Your task to perform on an android device: Go to settings Image 0: 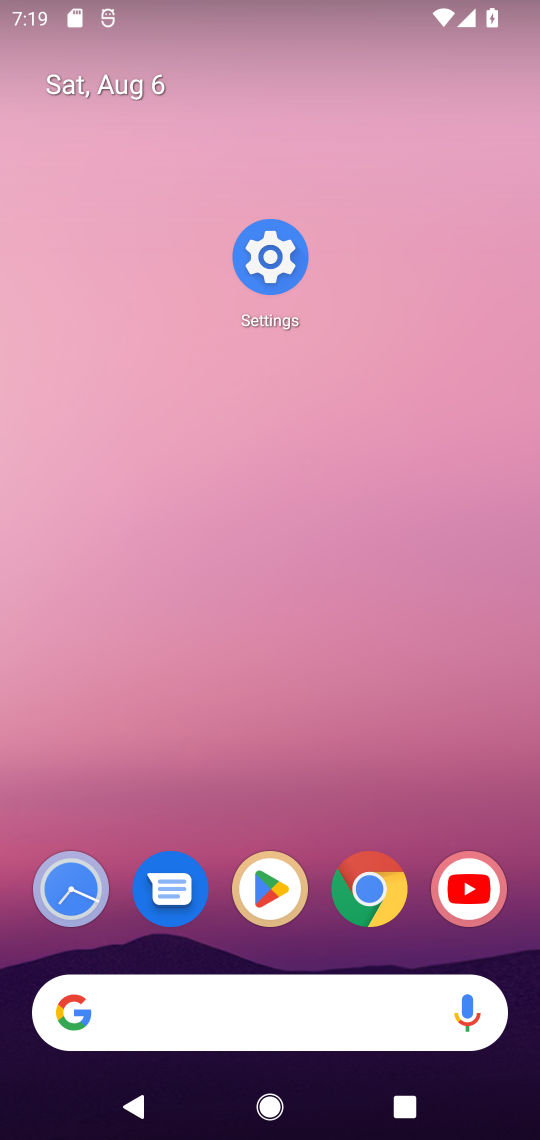
Step 0: click (268, 260)
Your task to perform on an android device: Go to settings Image 1: 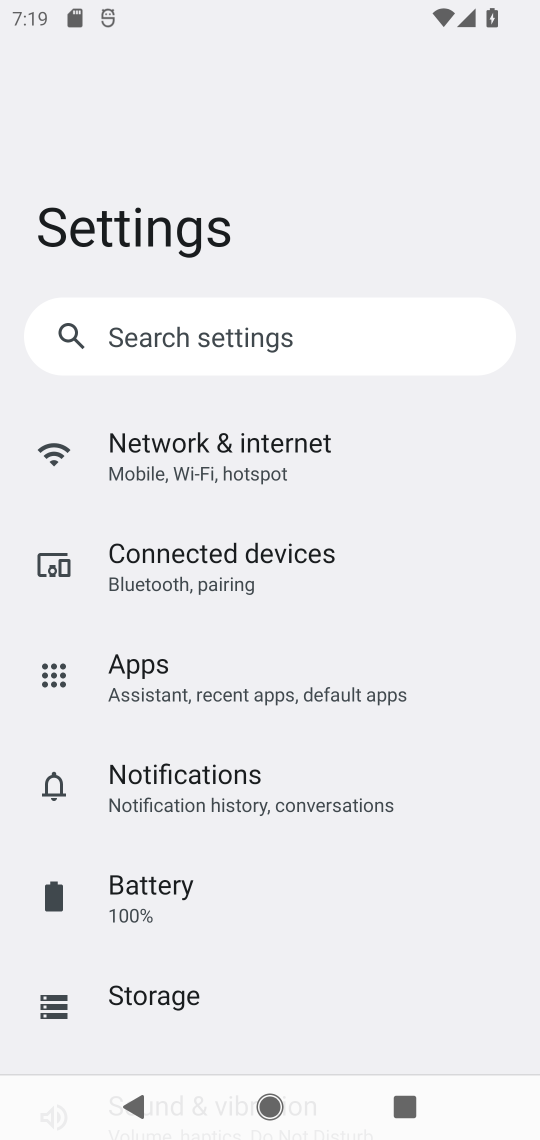
Step 1: task complete